Your task to perform on an android device: Open accessibility settings Image 0: 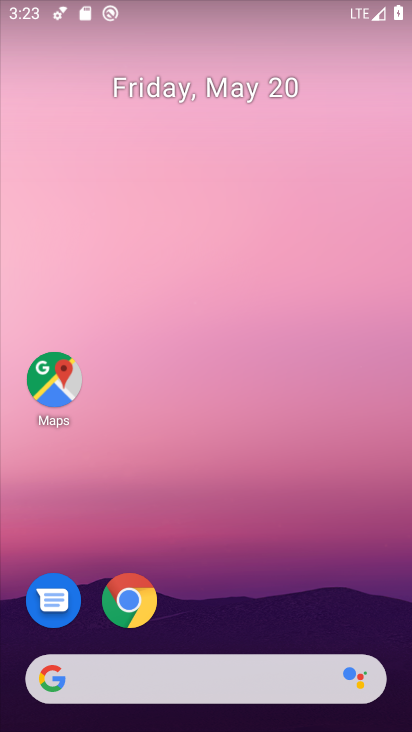
Step 0: drag from (377, 622) to (346, 166)
Your task to perform on an android device: Open accessibility settings Image 1: 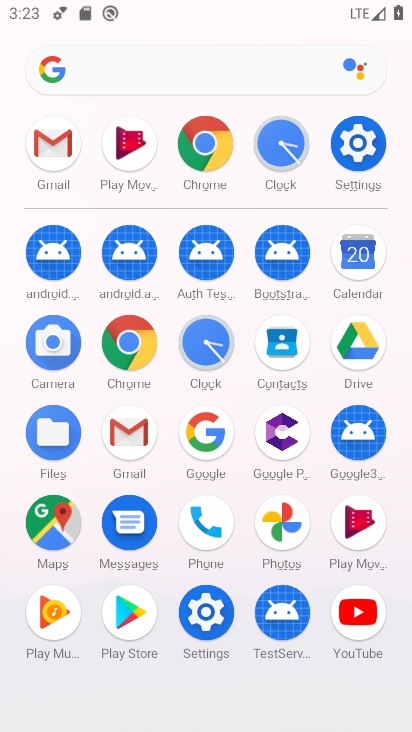
Step 1: click (350, 155)
Your task to perform on an android device: Open accessibility settings Image 2: 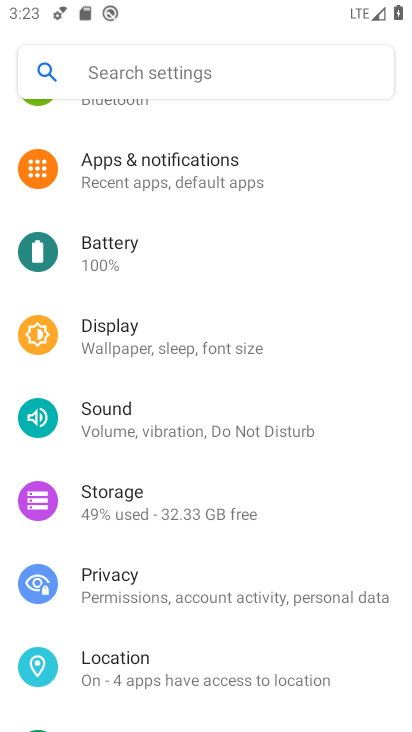
Step 2: drag from (356, 481) to (347, 398)
Your task to perform on an android device: Open accessibility settings Image 3: 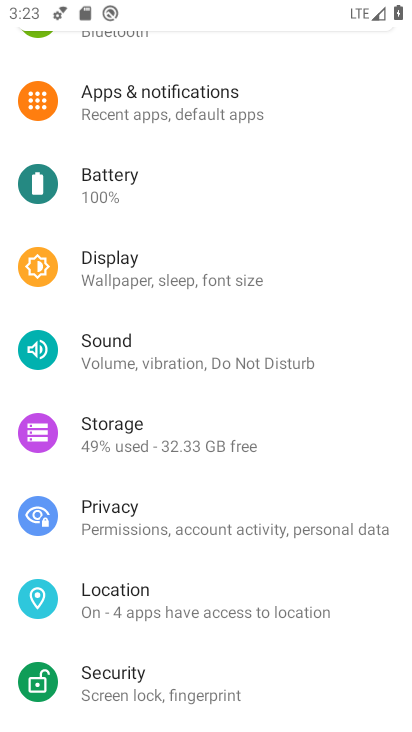
Step 3: drag from (360, 650) to (346, 479)
Your task to perform on an android device: Open accessibility settings Image 4: 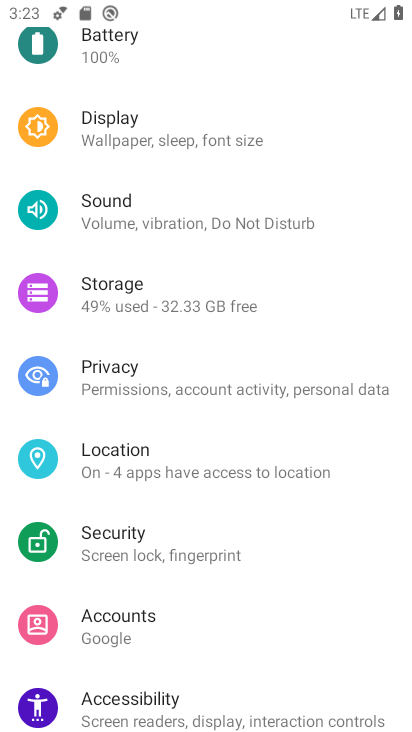
Step 4: drag from (345, 631) to (342, 530)
Your task to perform on an android device: Open accessibility settings Image 5: 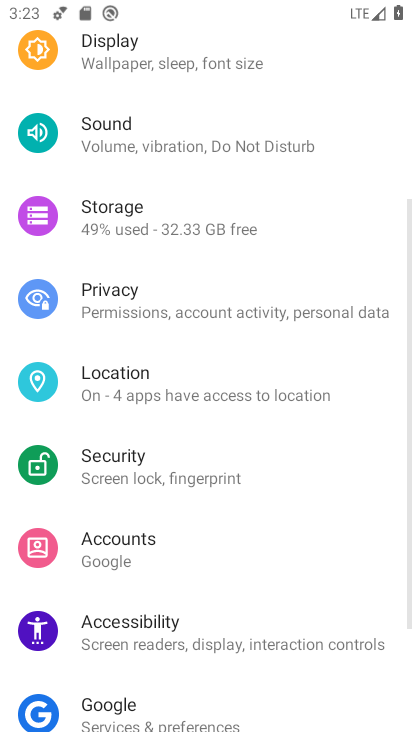
Step 5: drag from (347, 675) to (343, 541)
Your task to perform on an android device: Open accessibility settings Image 6: 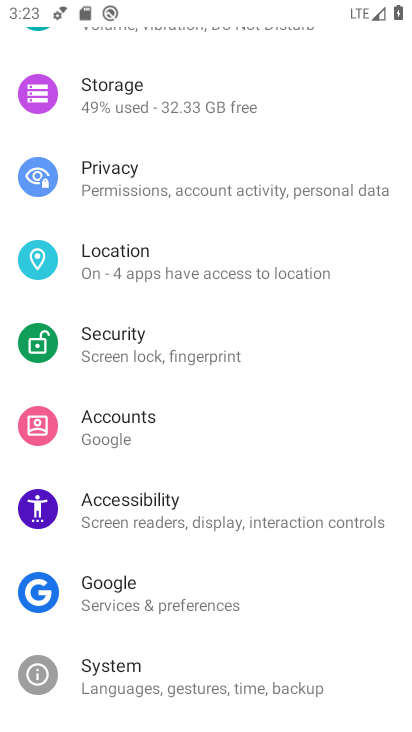
Step 6: drag from (336, 688) to (340, 578)
Your task to perform on an android device: Open accessibility settings Image 7: 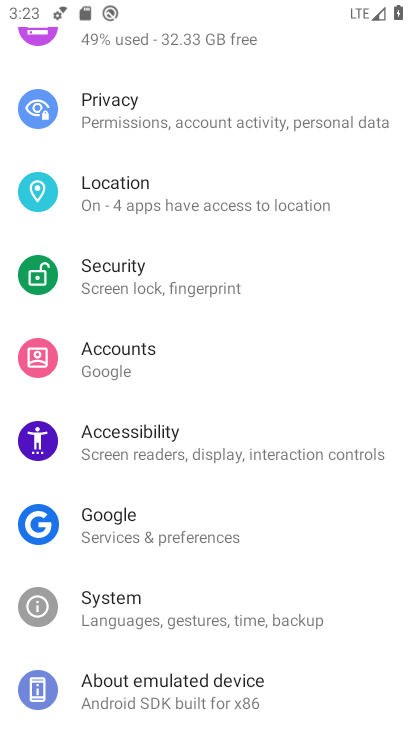
Step 7: click (302, 454)
Your task to perform on an android device: Open accessibility settings Image 8: 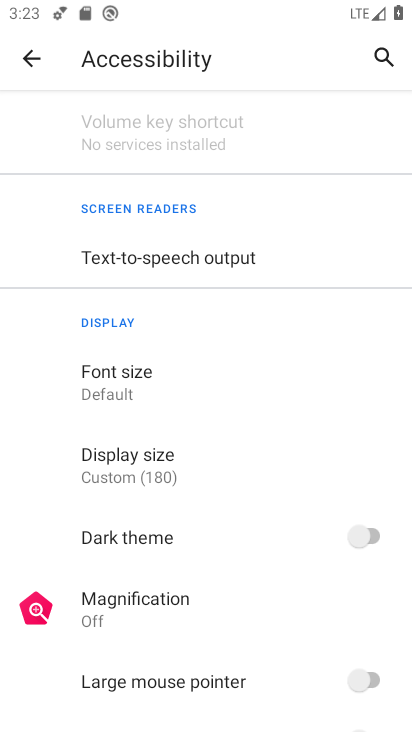
Step 8: task complete